Your task to perform on an android device: Go to wifi settings Image 0: 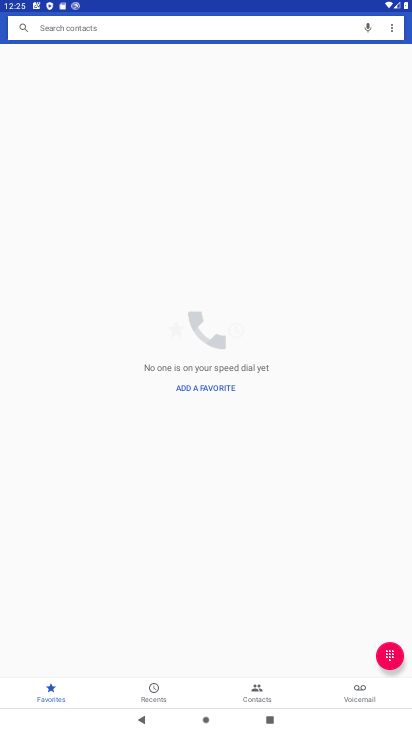
Step 0: press home button
Your task to perform on an android device: Go to wifi settings Image 1: 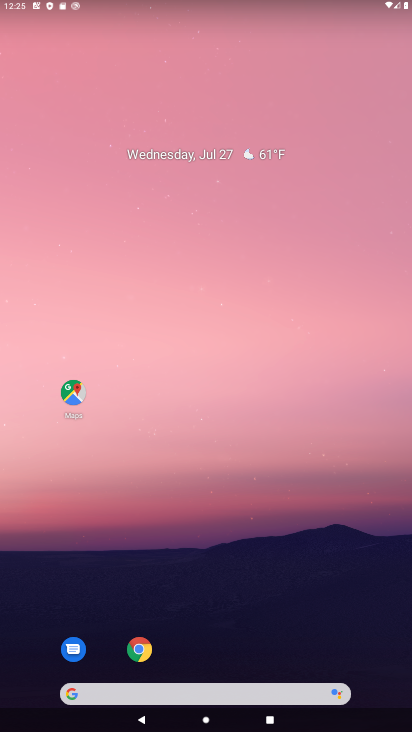
Step 1: drag from (262, 634) to (252, 180)
Your task to perform on an android device: Go to wifi settings Image 2: 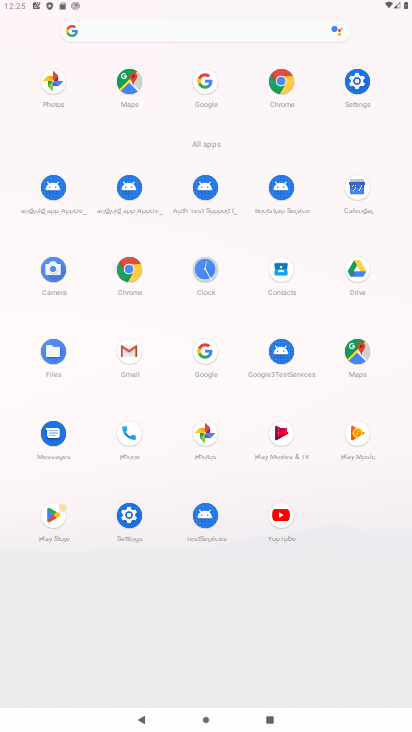
Step 2: click (354, 76)
Your task to perform on an android device: Go to wifi settings Image 3: 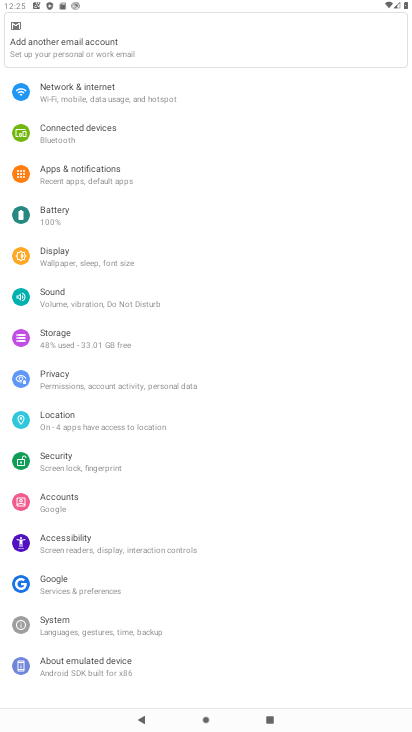
Step 3: click (257, 88)
Your task to perform on an android device: Go to wifi settings Image 4: 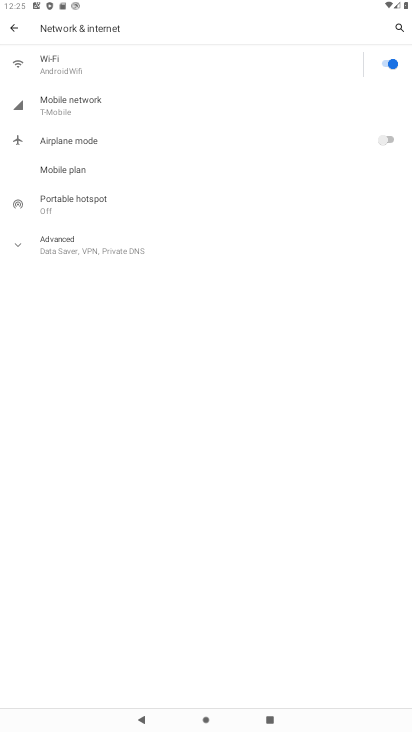
Step 4: click (238, 72)
Your task to perform on an android device: Go to wifi settings Image 5: 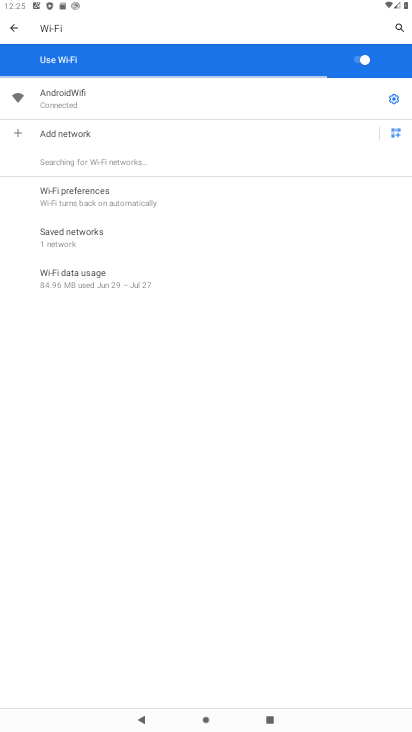
Step 5: task complete